Your task to perform on an android device: turn on wifi Image 0: 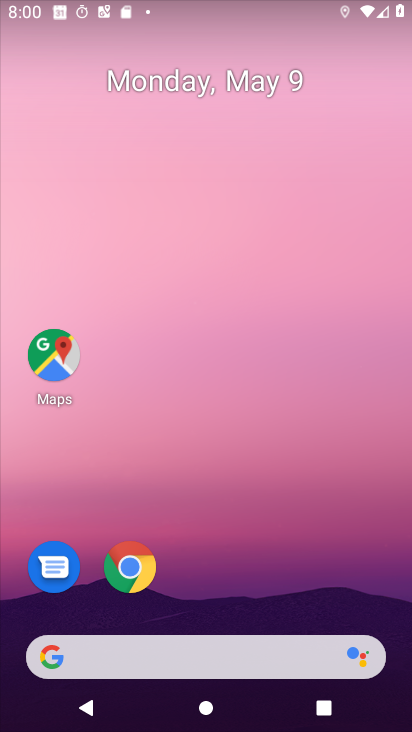
Step 0: drag from (199, 596) to (165, 89)
Your task to perform on an android device: turn on wifi Image 1: 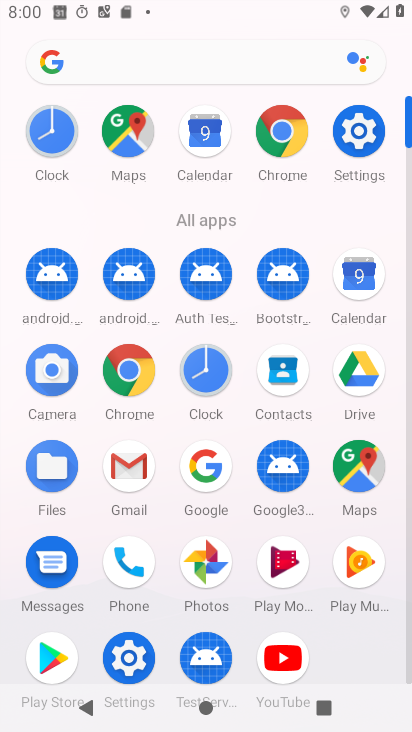
Step 1: click (355, 137)
Your task to perform on an android device: turn on wifi Image 2: 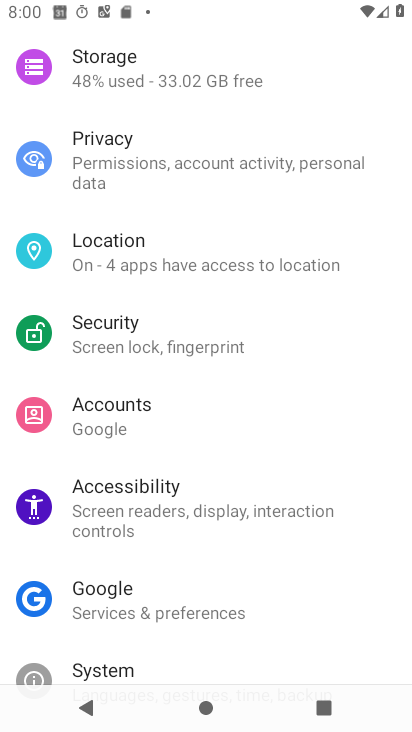
Step 2: drag from (123, 285) to (181, 570)
Your task to perform on an android device: turn on wifi Image 3: 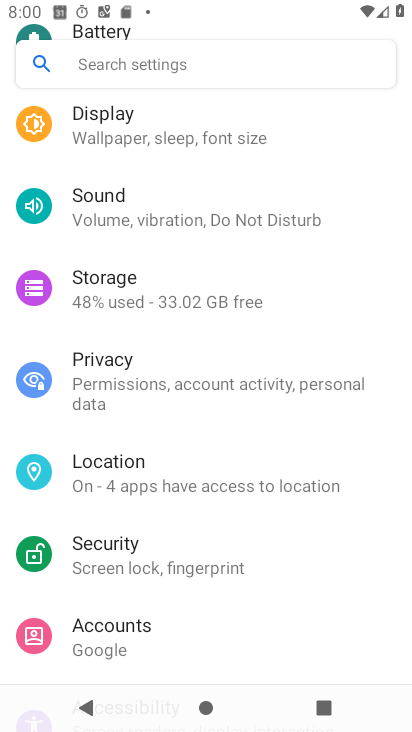
Step 3: drag from (279, 161) to (326, 620)
Your task to perform on an android device: turn on wifi Image 4: 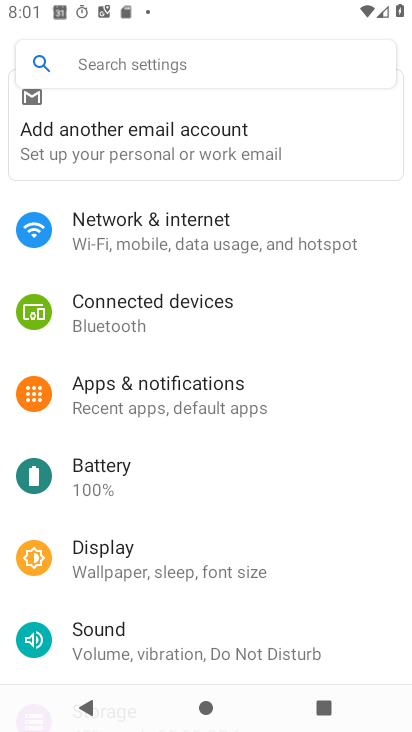
Step 4: click (241, 236)
Your task to perform on an android device: turn on wifi Image 5: 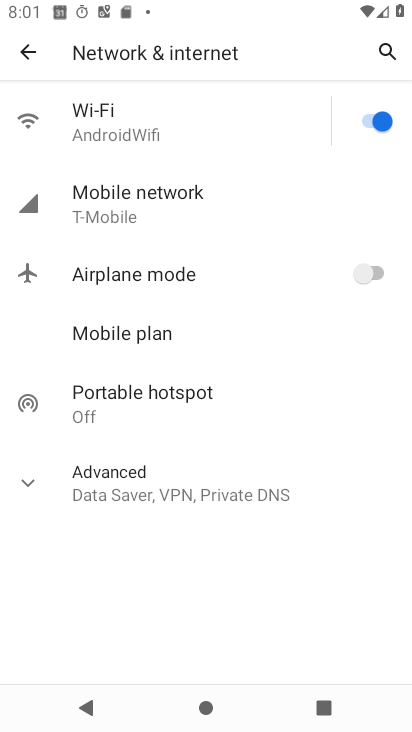
Step 5: task complete